Your task to perform on an android device: Go to Google maps Image 0: 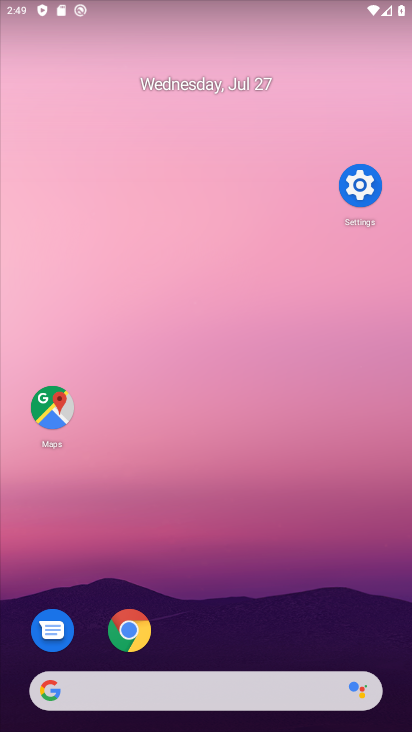
Step 0: press home button
Your task to perform on an android device: Go to Google maps Image 1: 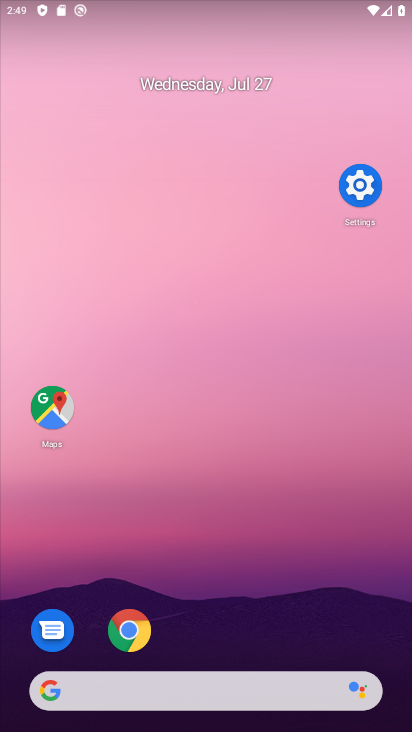
Step 1: drag from (231, 617) to (203, 55)
Your task to perform on an android device: Go to Google maps Image 2: 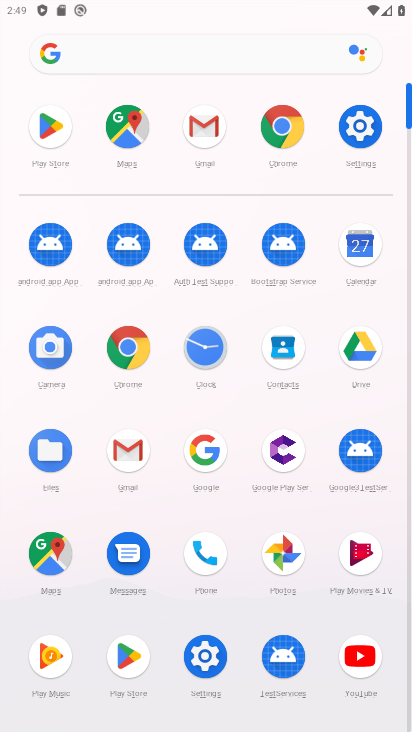
Step 2: click (130, 133)
Your task to perform on an android device: Go to Google maps Image 3: 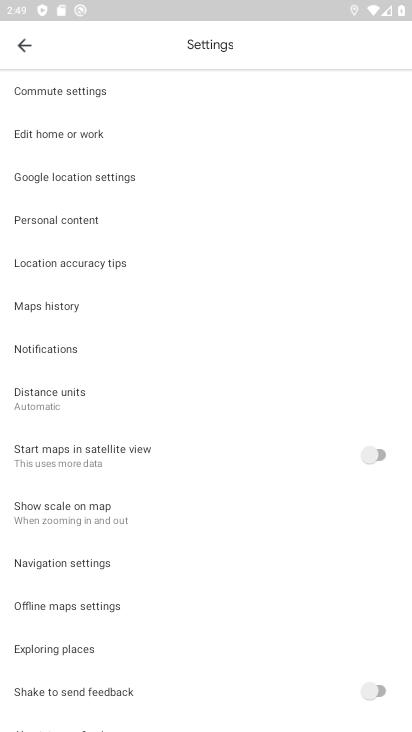
Step 3: click (20, 44)
Your task to perform on an android device: Go to Google maps Image 4: 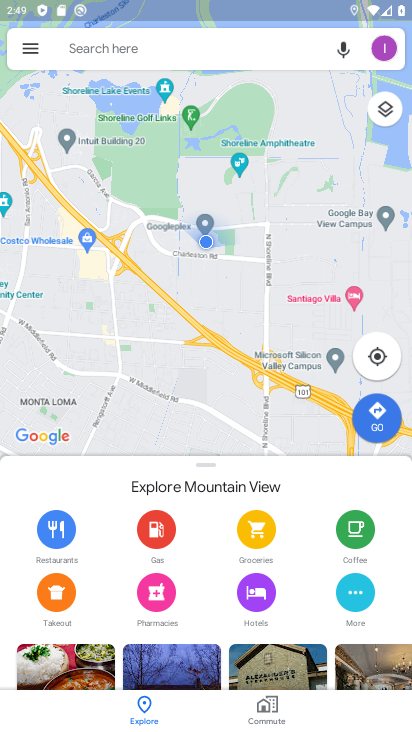
Step 4: task complete